Your task to perform on an android device: Search for seafood restaurants on Google Maps Image 0: 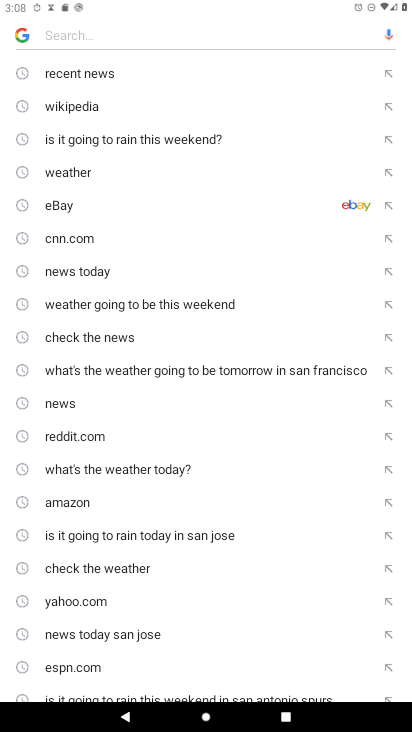
Step 0: press home button
Your task to perform on an android device: Search for seafood restaurants on Google Maps Image 1: 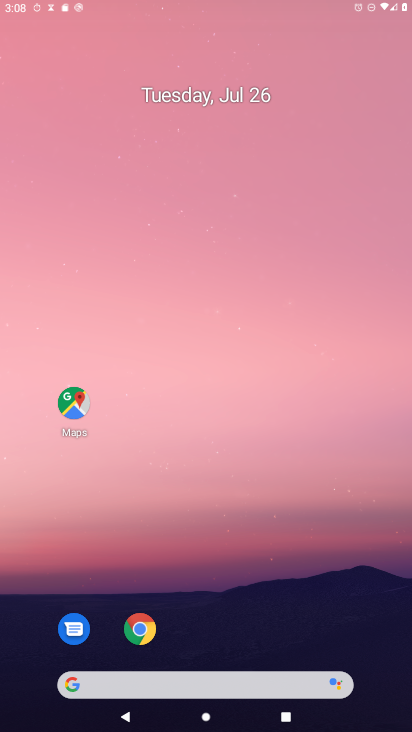
Step 1: drag from (257, 682) to (245, 3)
Your task to perform on an android device: Search for seafood restaurants on Google Maps Image 2: 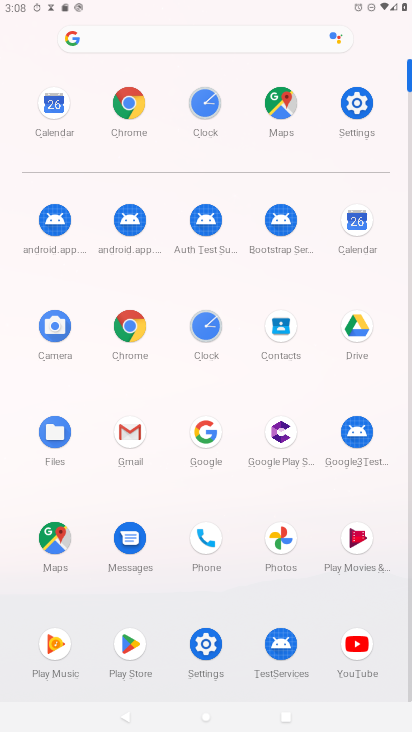
Step 2: click (57, 540)
Your task to perform on an android device: Search for seafood restaurants on Google Maps Image 3: 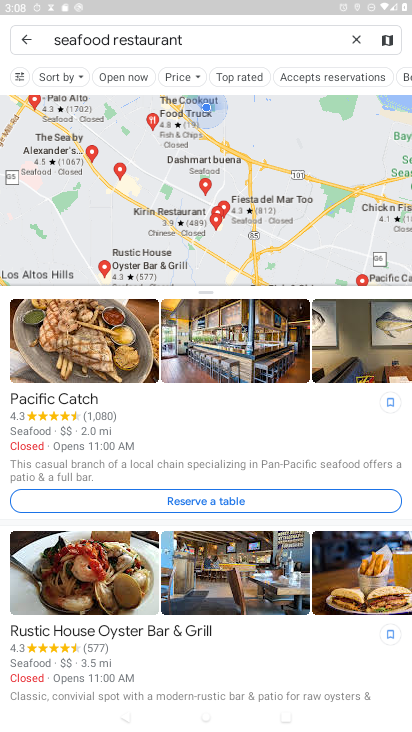
Step 3: task complete